Your task to perform on an android device: What is the news today? Image 0: 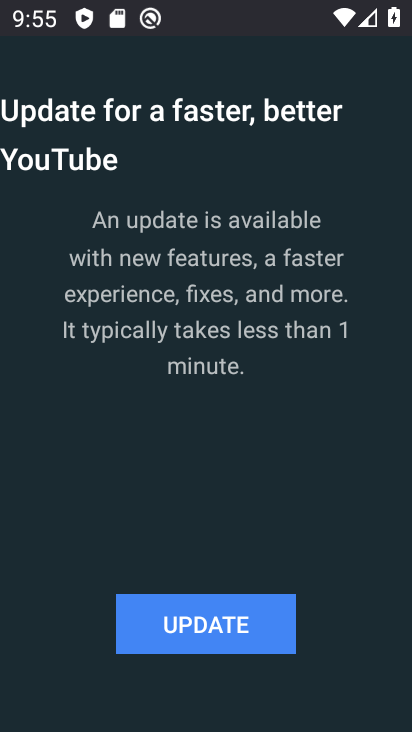
Step 0: press home button
Your task to perform on an android device: What is the news today? Image 1: 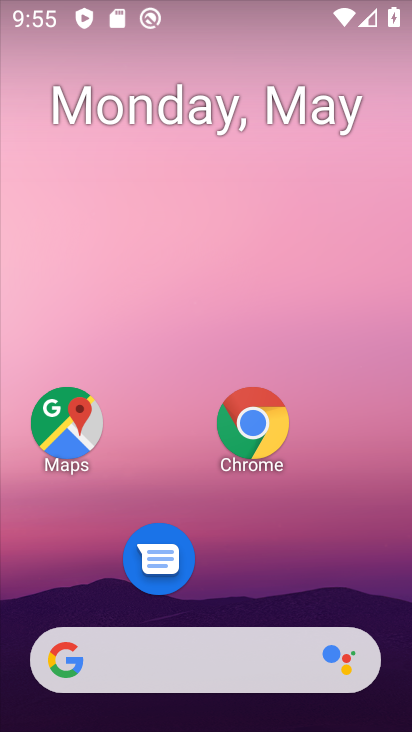
Step 1: click (233, 649)
Your task to perform on an android device: What is the news today? Image 2: 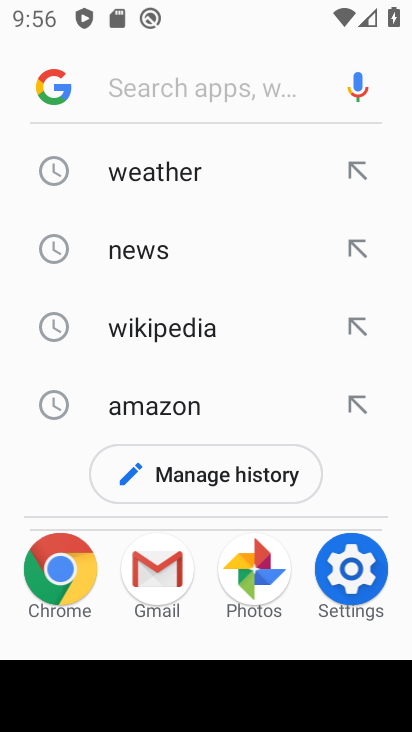
Step 2: click (141, 235)
Your task to perform on an android device: What is the news today? Image 3: 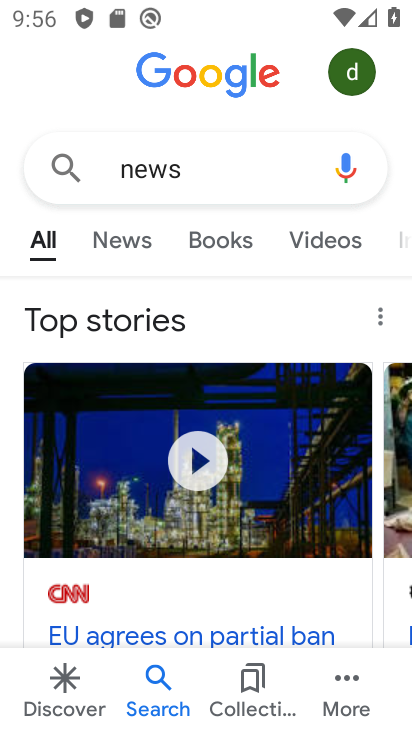
Step 3: task complete